Your task to perform on an android device: Is it going to rain today? Image 0: 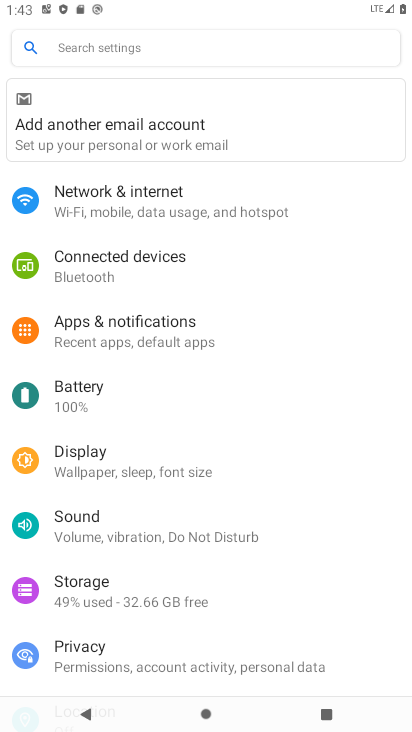
Step 0: press home button
Your task to perform on an android device: Is it going to rain today? Image 1: 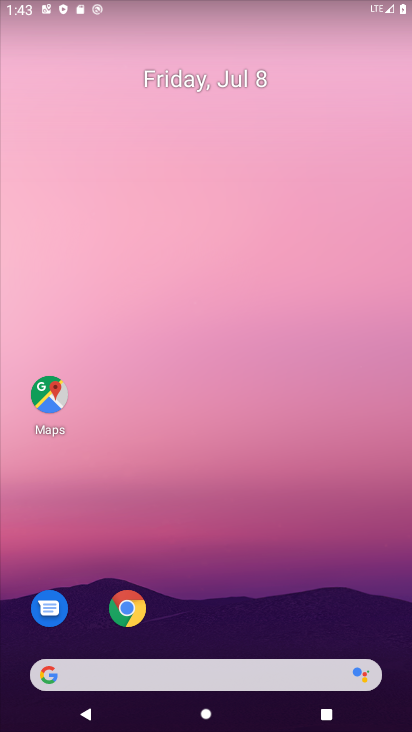
Step 1: drag from (6, 236) to (342, 267)
Your task to perform on an android device: Is it going to rain today? Image 2: 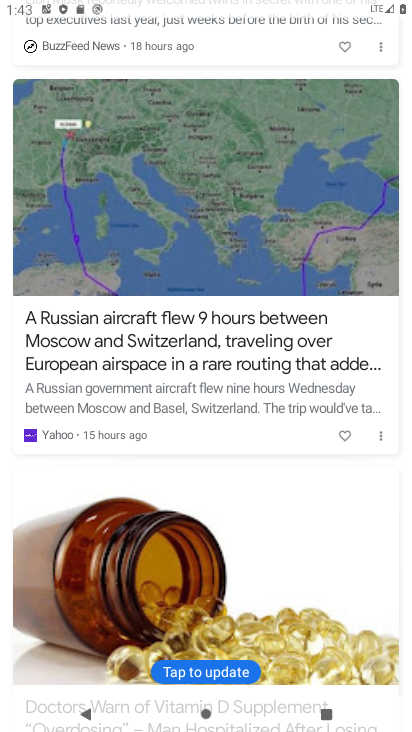
Step 2: drag from (258, 60) to (278, 484)
Your task to perform on an android device: Is it going to rain today? Image 3: 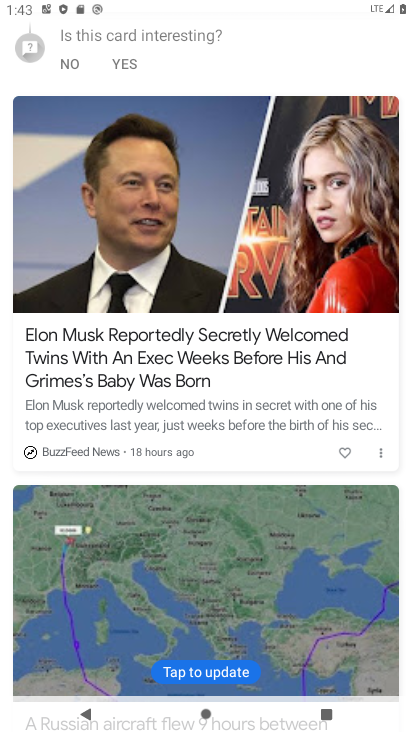
Step 3: drag from (273, 82) to (285, 471)
Your task to perform on an android device: Is it going to rain today? Image 4: 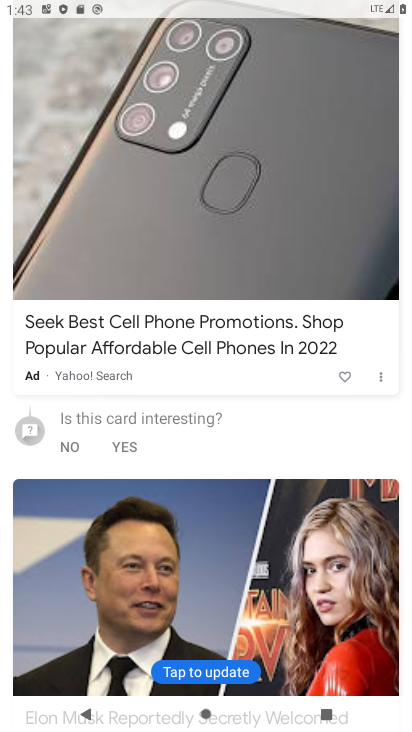
Step 4: drag from (277, 94) to (296, 508)
Your task to perform on an android device: Is it going to rain today? Image 5: 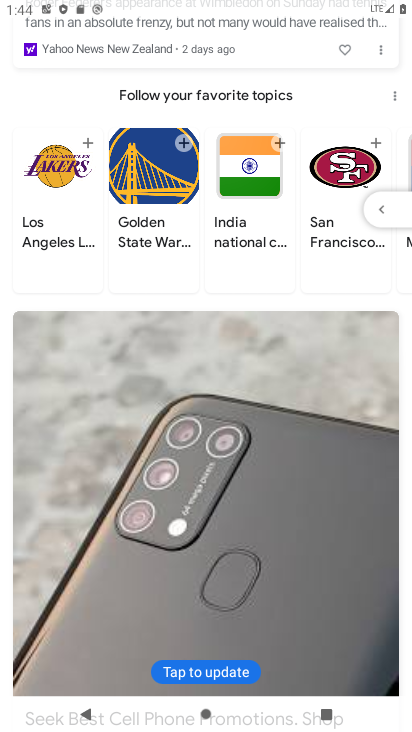
Step 5: drag from (283, 86) to (322, 550)
Your task to perform on an android device: Is it going to rain today? Image 6: 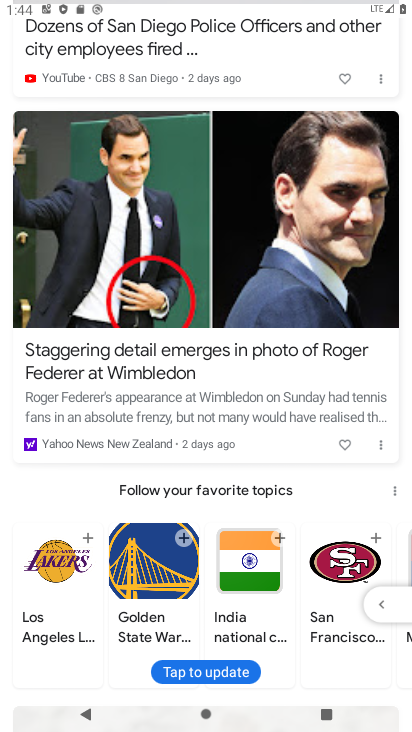
Step 6: drag from (297, 75) to (337, 484)
Your task to perform on an android device: Is it going to rain today? Image 7: 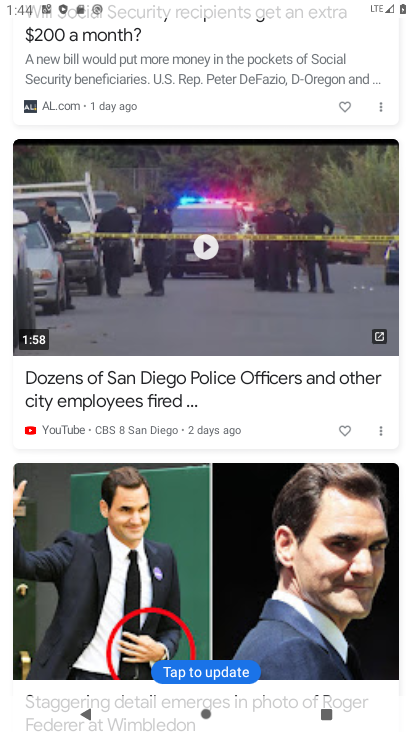
Step 7: drag from (299, 109) to (329, 497)
Your task to perform on an android device: Is it going to rain today? Image 8: 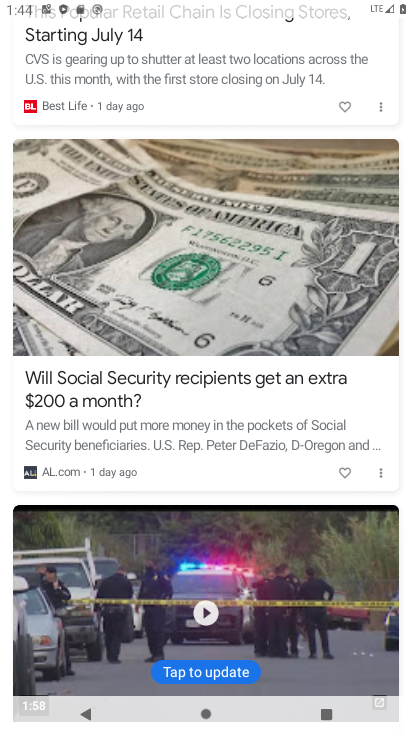
Step 8: drag from (282, 71) to (323, 544)
Your task to perform on an android device: Is it going to rain today? Image 9: 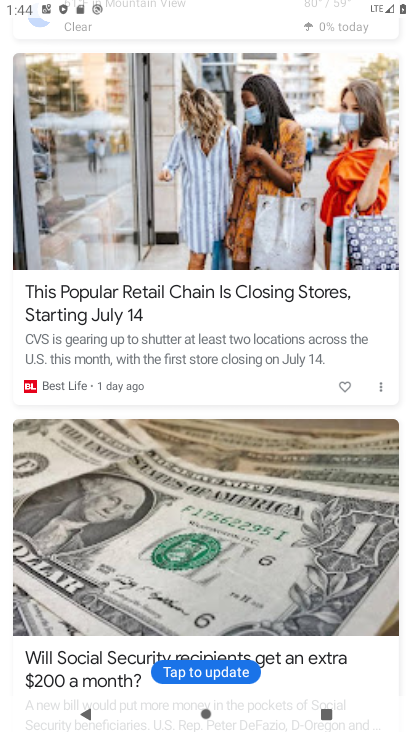
Step 9: drag from (256, 96) to (267, 604)
Your task to perform on an android device: Is it going to rain today? Image 10: 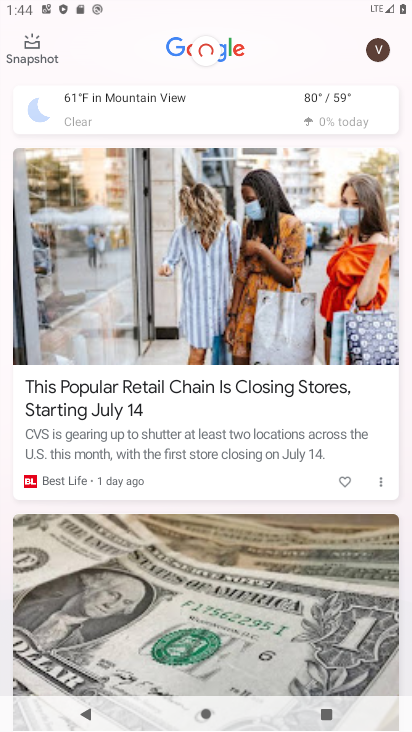
Step 10: click (322, 99)
Your task to perform on an android device: Is it going to rain today? Image 11: 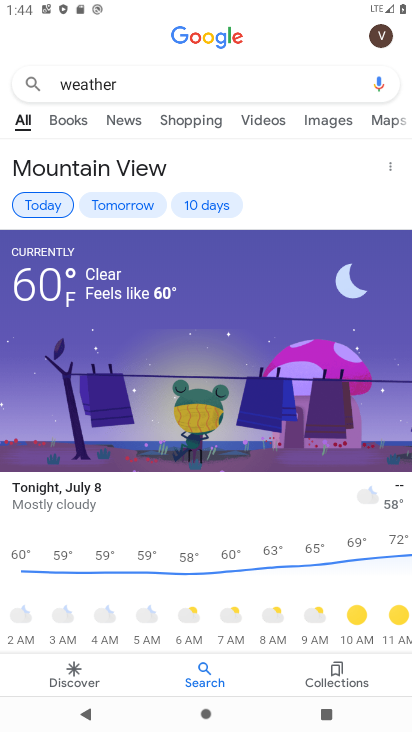
Step 11: task complete